Your task to perform on an android device: uninstall "The Home Depot" Image 0: 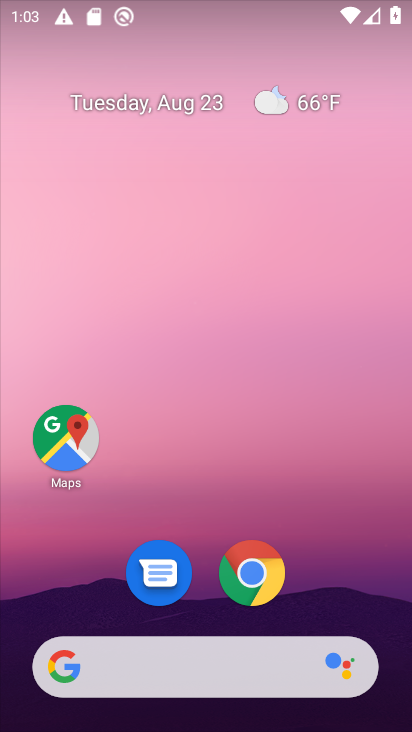
Step 0: drag from (194, 464) to (209, 66)
Your task to perform on an android device: uninstall "The Home Depot" Image 1: 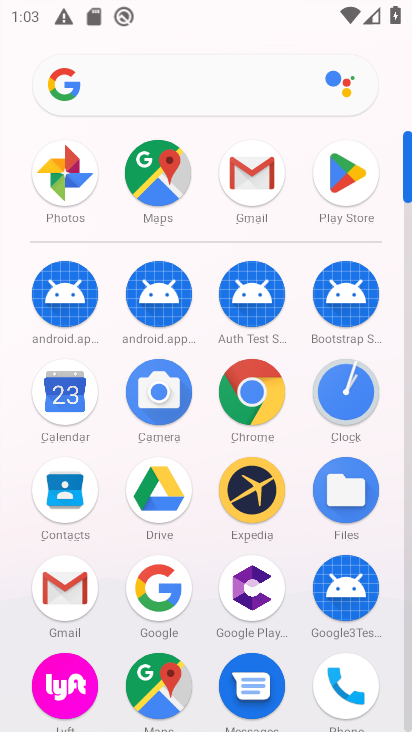
Step 1: click (331, 183)
Your task to perform on an android device: uninstall "The Home Depot" Image 2: 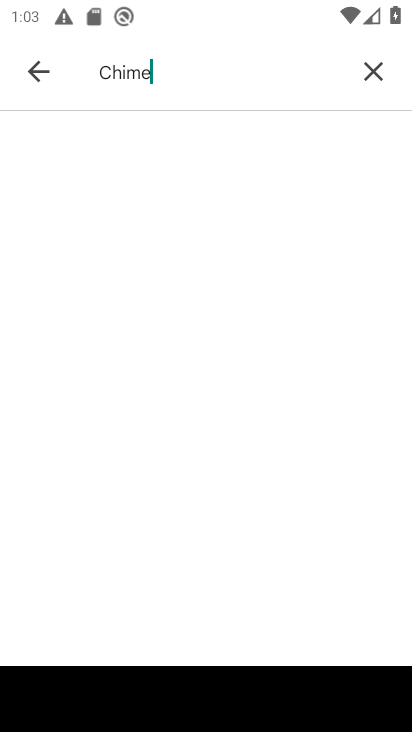
Step 2: click (409, 67)
Your task to perform on an android device: uninstall "The Home Depot" Image 3: 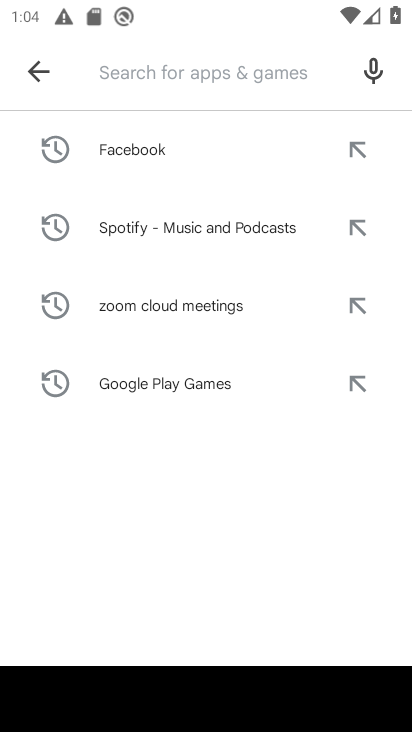
Step 3: type "The Home Depot"
Your task to perform on an android device: uninstall "The Home Depot" Image 4: 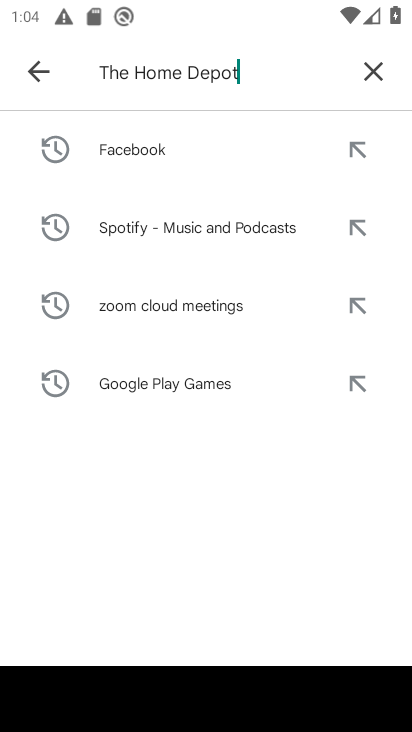
Step 4: type ""
Your task to perform on an android device: uninstall "The Home Depot" Image 5: 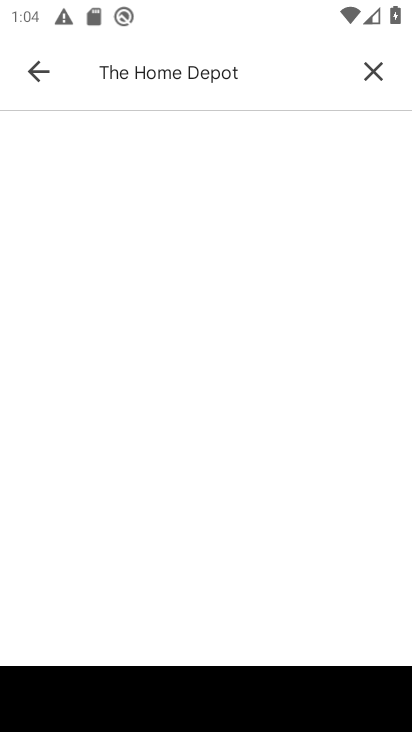
Step 5: task complete